Your task to perform on an android device: When is my next meeting? Image 0: 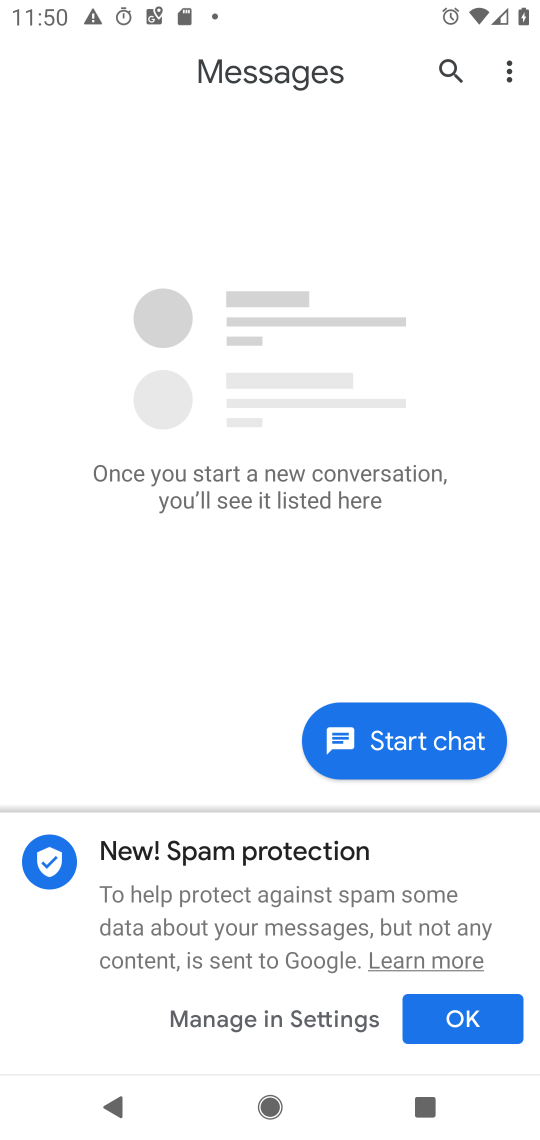
Step 0: press home button
Your task to perform on an android device: When is my next meeting? Image 1: 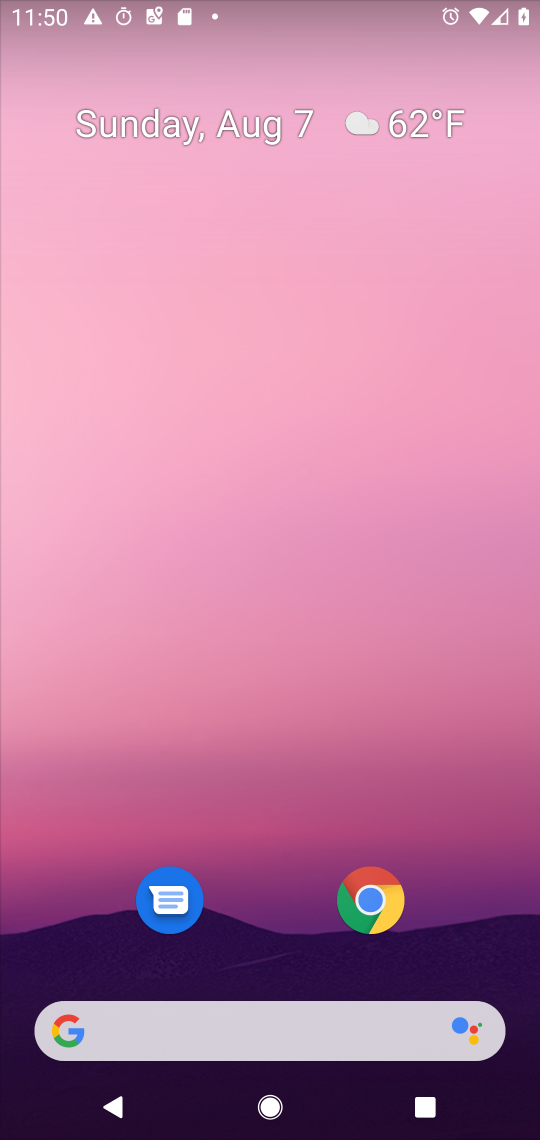
Step 1: drag from (287, 958) to (334, 46)
Your task to perform on an android device: When is my next meeting? Image 2: 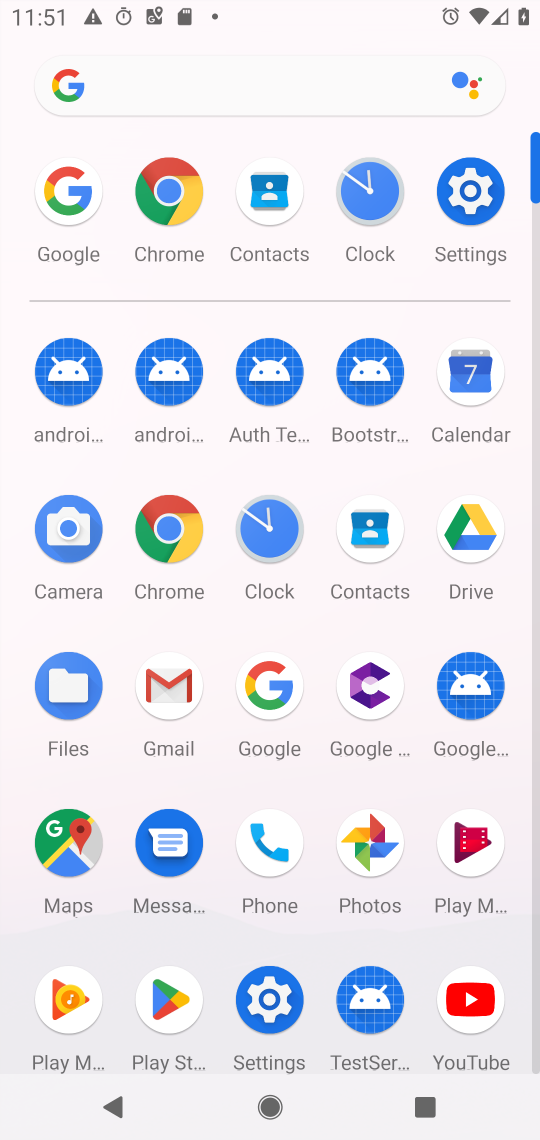
Step 2: click (469, 368)
Your task to perform on an android device: When is my next meeting? Image 3: 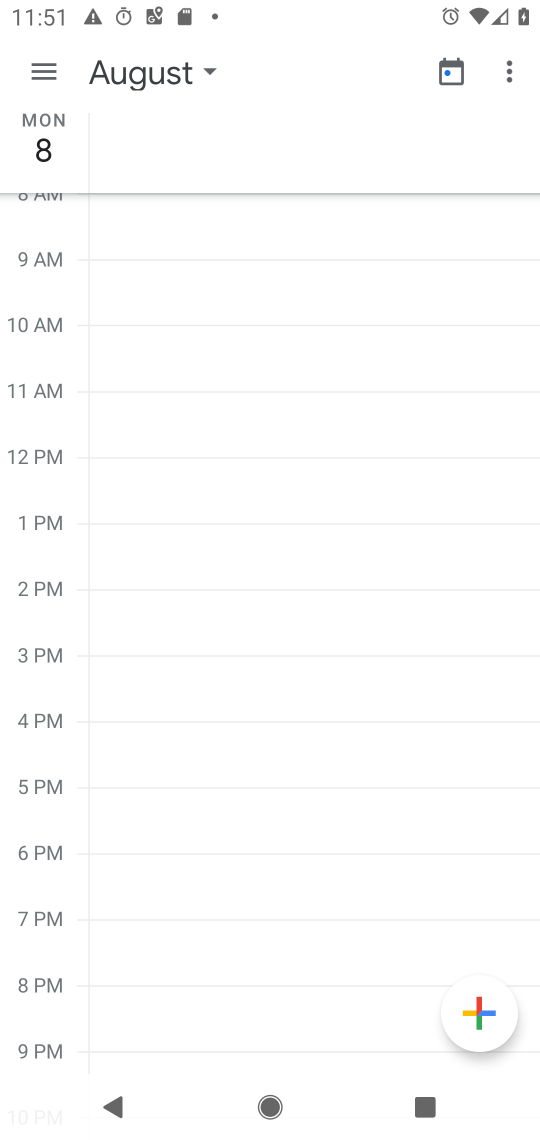
Step 3: click (57, 150)
Your task to perform on an android device: When is my next meeting? Image 4: 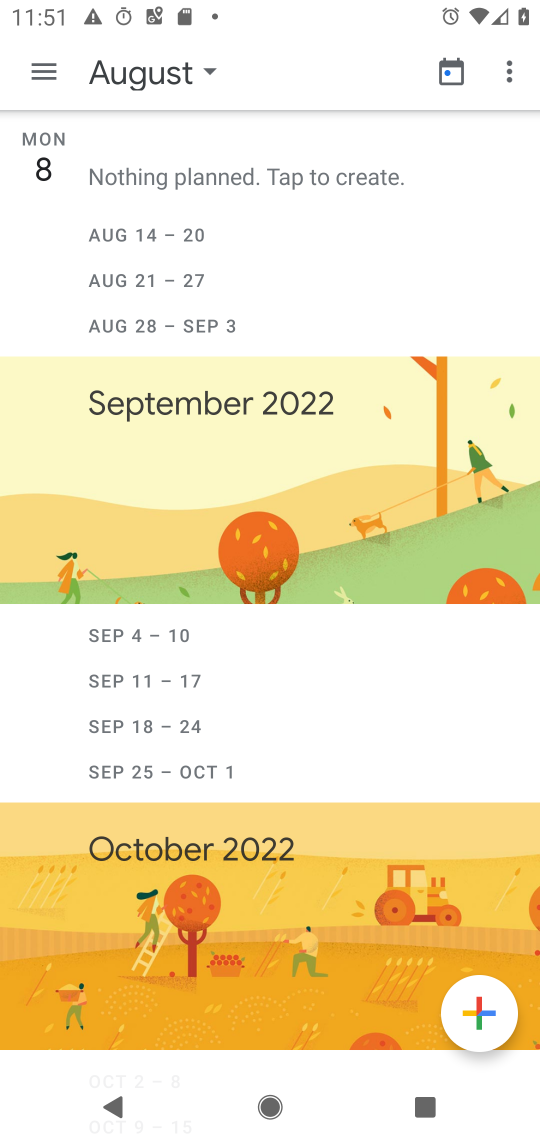
Step 4: task complete